Your task to perform on an android device: install app "Messenger Lite" Image 0: 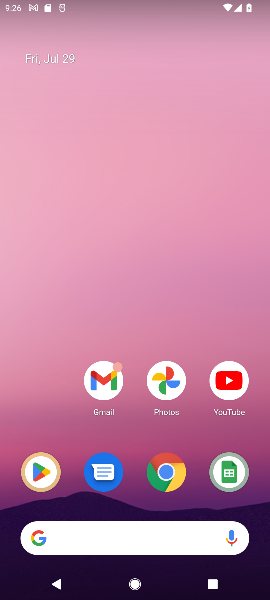
Step 0: drag from (135, 532) to (103, 137)
Your task to perform on an android device: install app "Messenger Lite" Image 1: 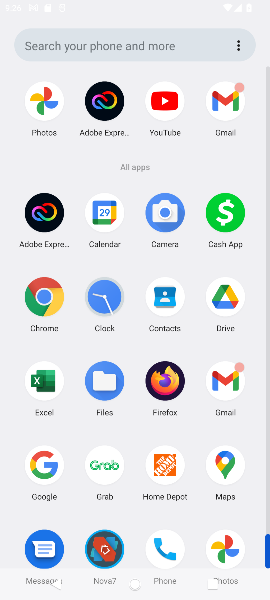
Step 1: drag from (153, 391) to (95, 148)
Your task to perform on an android device: install app "Messenger Lite" Image 2: 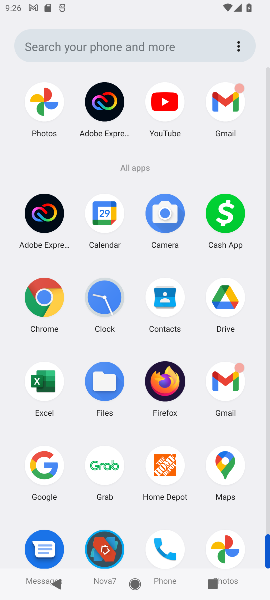
Step 2: drag from (124, 366) to (120, 264)
Your task to perform on an android device: install app "Messenger Lite" Image 3: 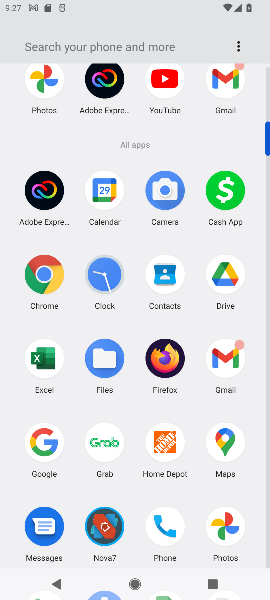
Step 3: drag from (140, 408) to (99, 63)
Your task to perform on an android device: install app "Messenger Lite" Image 4: 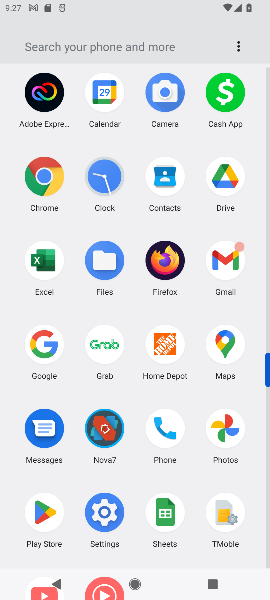
Step 4: drag from (116, 363) to (85, 255)
Your task to perform on an android device: install app "Messenger Lite" Image 5: 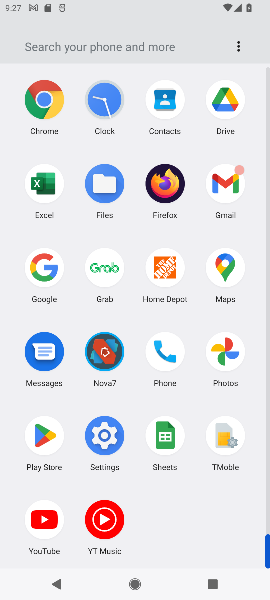
Step 5: click (39, 442)
Your task to perform on an android device: install app "Messenger Lite" Image 6: 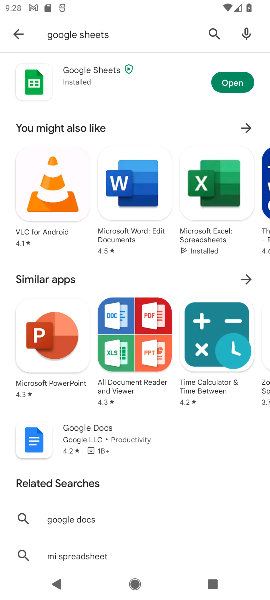
Step 6: click (31, 30)
Your task to perform on an android device: install app "Messenger Lite" Image 7: 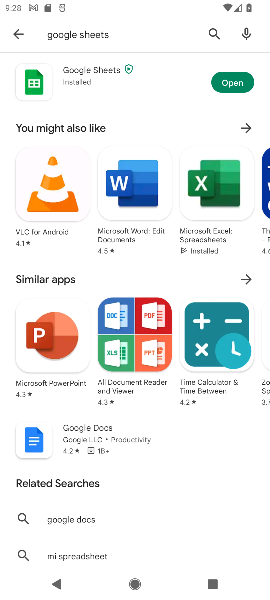
Step 7: click (15, 29)
Your task to perform on an android device: install app "Messenger Lite" Image 8: 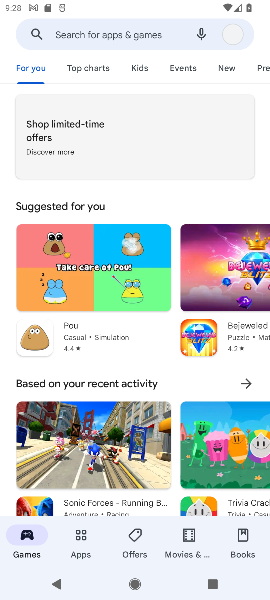
Step 8: click (14, 27)
Your task to perform on an android device: install app "Messenger Lite" Image 9: 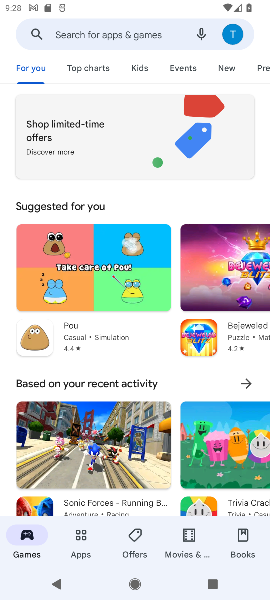
Step 9: click (100, 28)
Your task to perform on an android device: install app "Messenger Lite" Image 10: 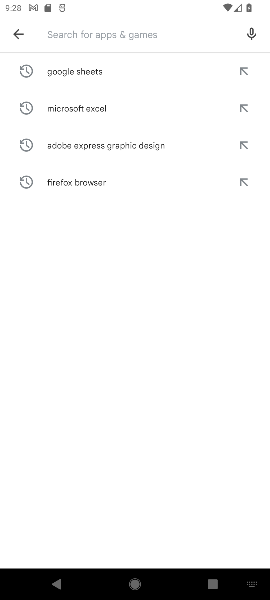
Step 10: type "messenger"
Your task to perform on an android device: install app "Messenger Lite" Image 11: 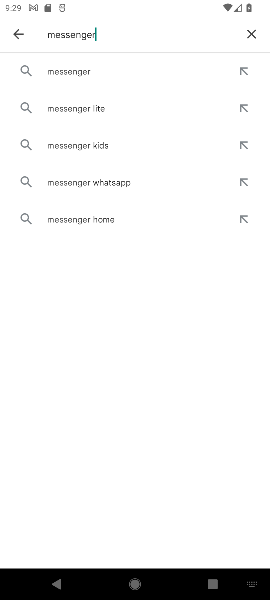
Step 11: click (97, 111)
Your task to perform on an android device: install app "Messenger Lite" Image 12: 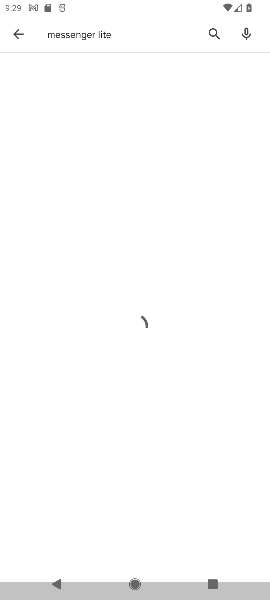
Step 12: click (97, 111)
Your task to perform on an android device: install app "Messenger Lite" Image 13: 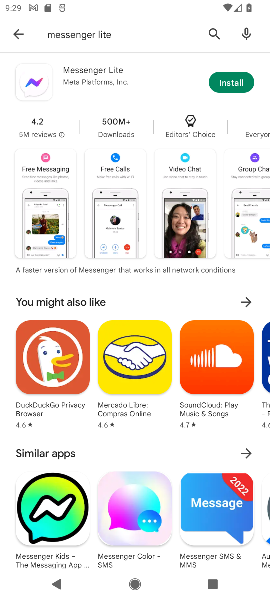
Step 13: click (223, 82)
Your task to perform on an android device: install app "Messenger Lite" Image 14: 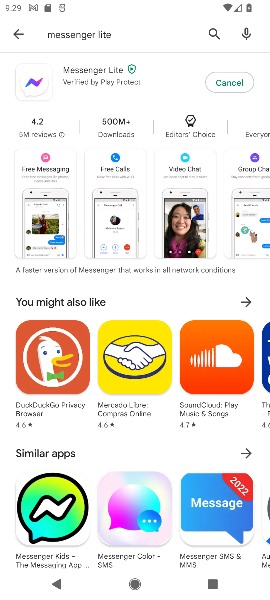
Step 14: click (223, 82)
Your task to perform on an android device: install app "Messenger Lite" Image 15: 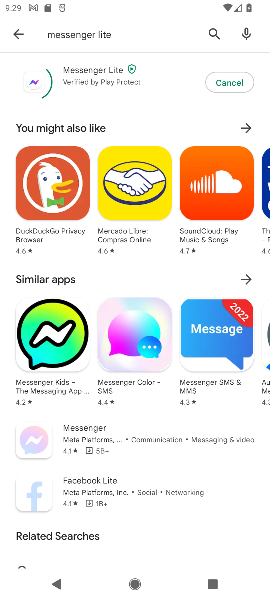
Step 15: click (223, 82)
Your task to perform on an android device: install app "Messenger Lite" Image 16: 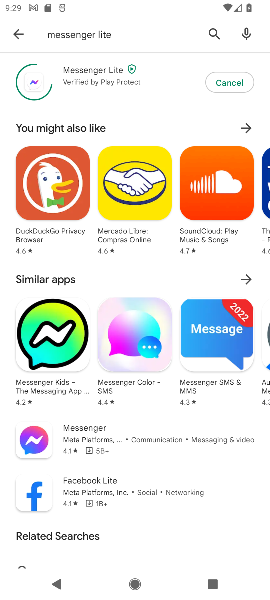
Step 16: click (223, 82)
Your task to perform on an android device: install app "Messenger Lite" Image 17: 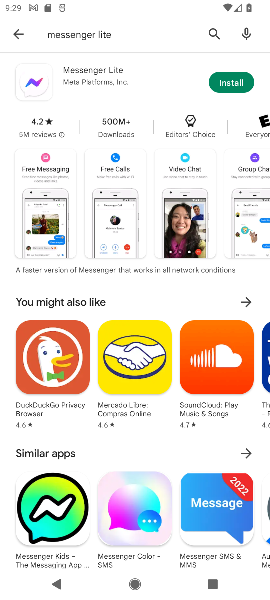
Step 17: click (243, 86)
Your task to perform on an android device: install app "Messenger Lite" Image 18: 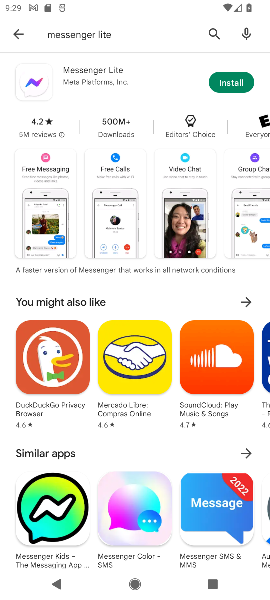
Step 18: click (243, 84)
Your task to perform on an android device: install app "Messenger Lite" Image 19: 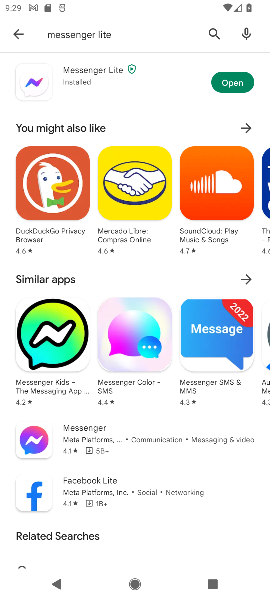
Step 19: task complete